Your task to perform on an android device: Find coffee shops on Maps Image 0: 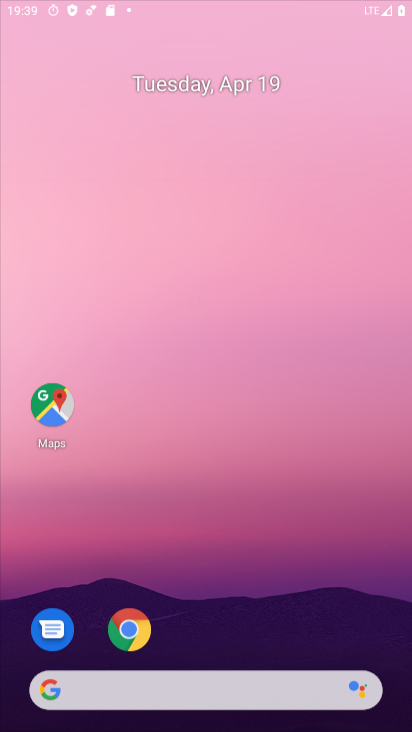
Step 0: drag from (180, 607) to (251, 0)
Your task to perform on an android device: Find coffee shops on Maps Image 1: 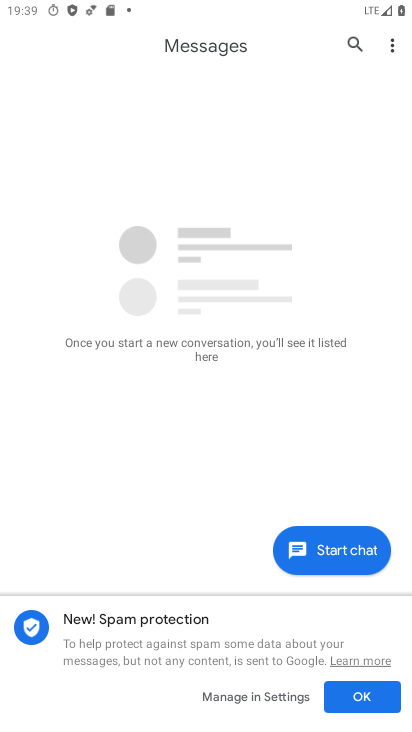
Step 1: press home button
Your task to perform on an android device: Find coffee shops on Maps Image 2: 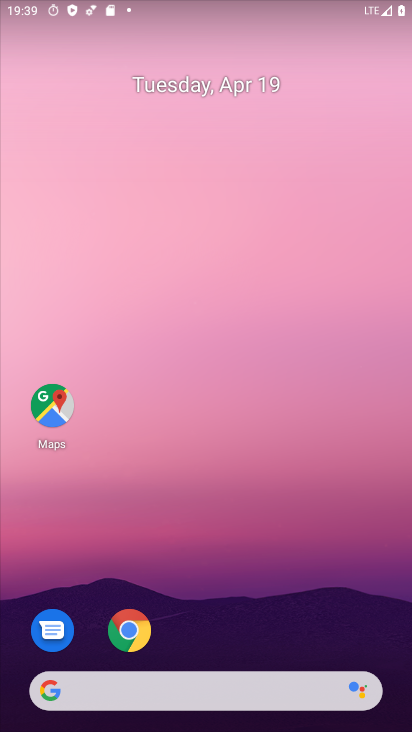
Step 2: click (41, 408)
Your task to perform on an android device: Find coffee shops on Maps Image 3: 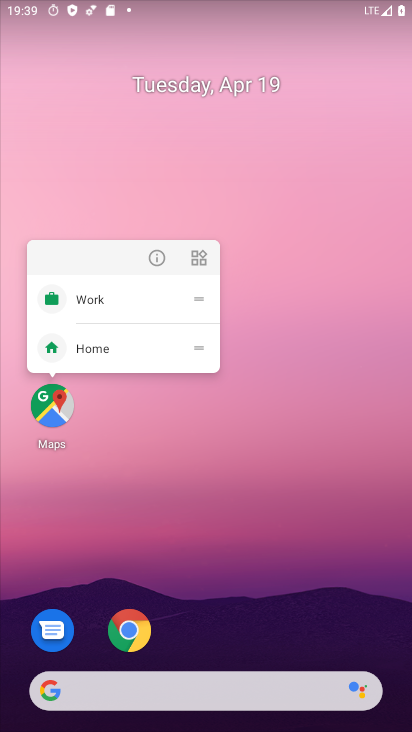
Step 3: click (57, 405)
Your task to perform on an android device: Find coffee shops on Maps Image 4: 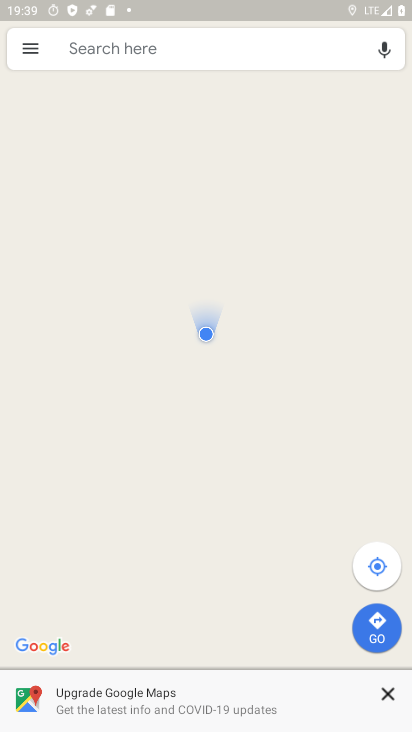
Step 4: click (249, 42)
Your task to perform on an android device: Find coffee shops on Maps Image 5: 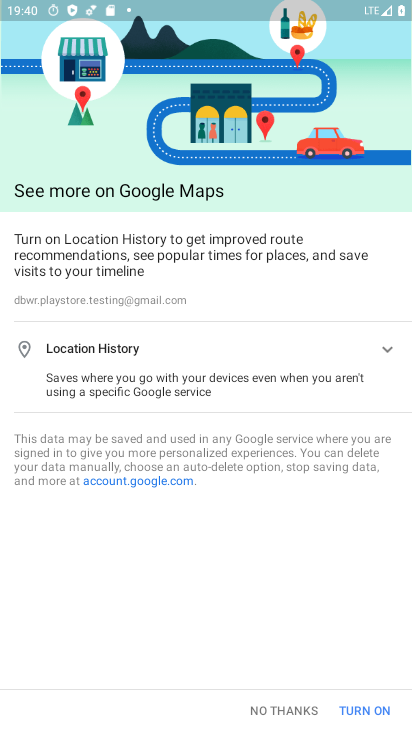
Step 5: click (387, 716)
Your task to perform on an android device: Find coffee shops on Maps Image 6: 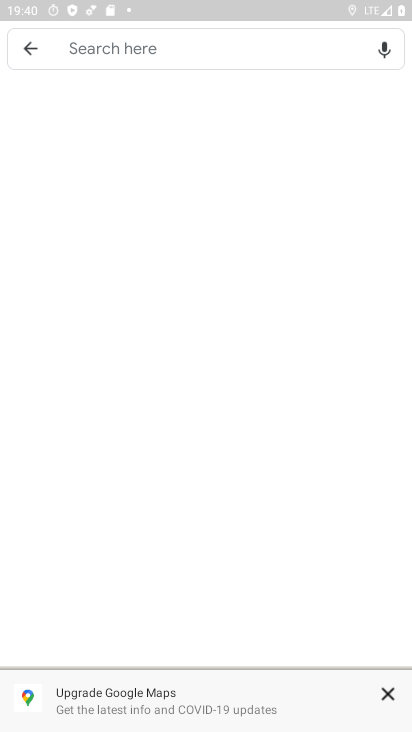
Step 6: click (386, 711)
Your task to perform on an android device: Find coffee shops on Maps Image 7: 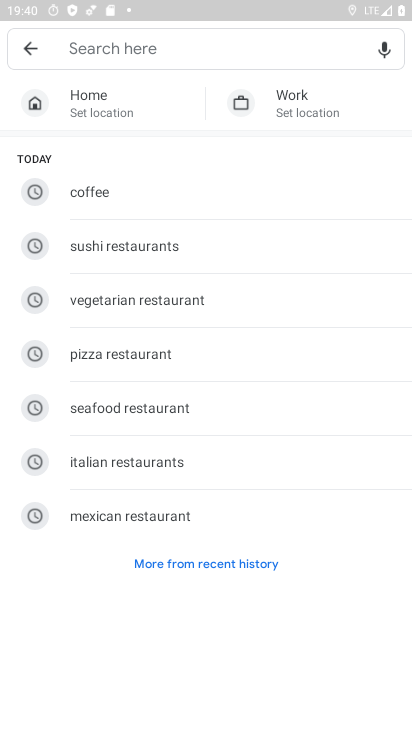
Step 7: click (132, 53)
Your task to perform on an android device: Find coffee shops on Maps Image 8: 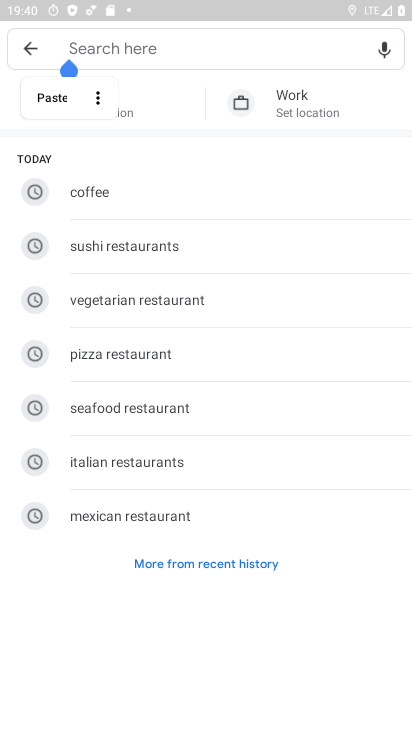
Step 8: type ""
Your task to perform on an android device: Find coffee shops on Maps Image 9: 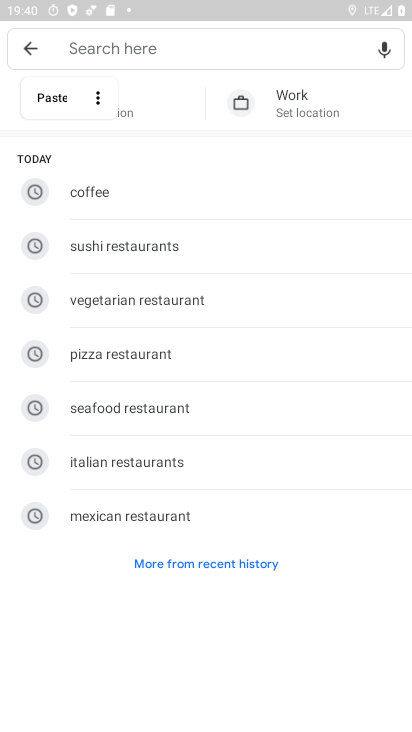
Step 9: type "coffee shop"
Your task to perform on an android device: Find coffee shops on Maps Image 10: 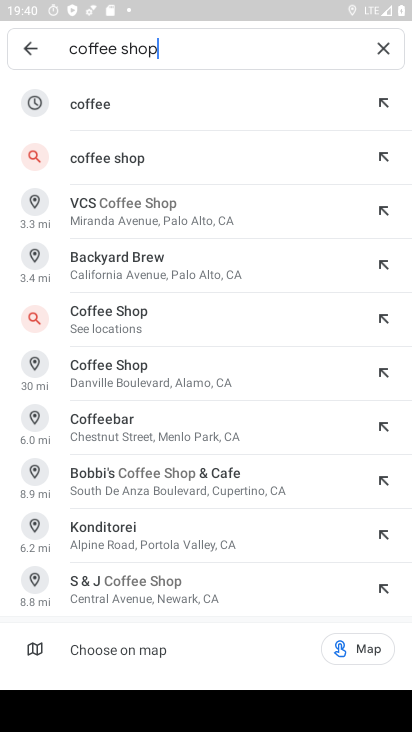
Step 10: click (176, 172)
Your task to perform on an android device: Find coffee shops on Maps Image 11: 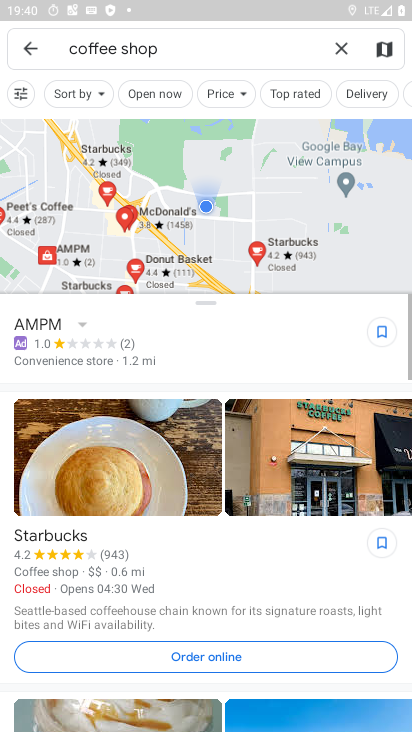
Step 11: task complete